Your task to perform on an android device: turn off translation in the chrome app Image 0: 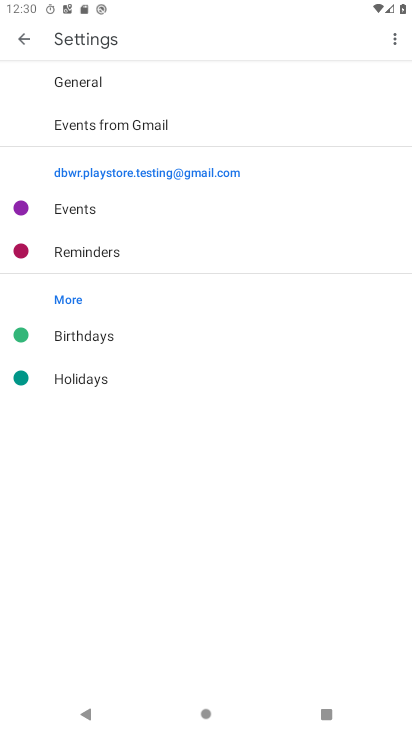
Step 0: press home button
Your task to perform on an android device: turn off translation in the chrome app Image 1: 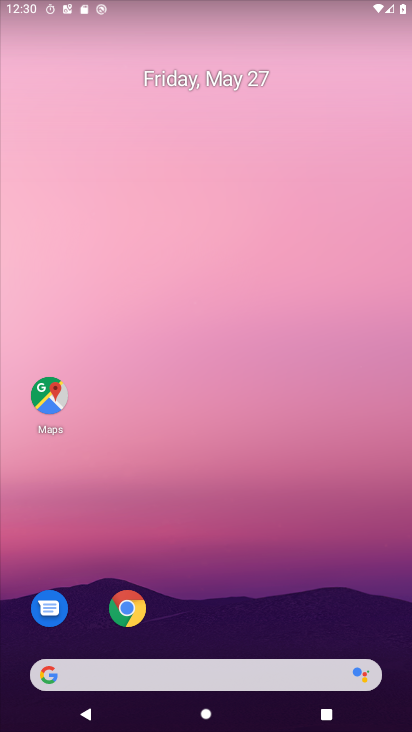
Step 1: click (130, 612)
Your task to perform on an android device: turn off translation in the chrome app Image 2: 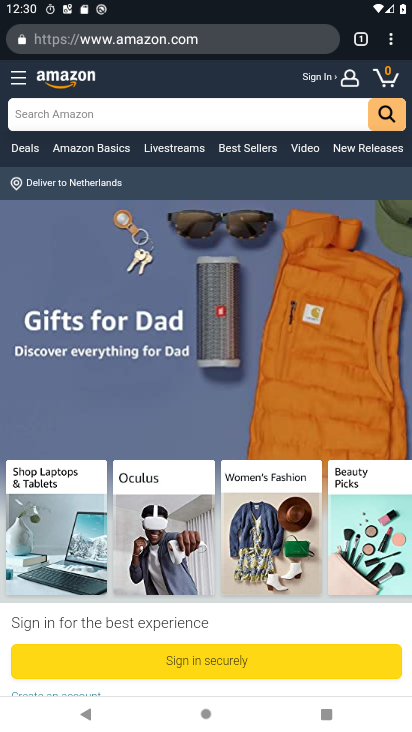
Step 2: click (387, 38)
Your task to perform on an android device: turn off translation in the chrome app Image 3: 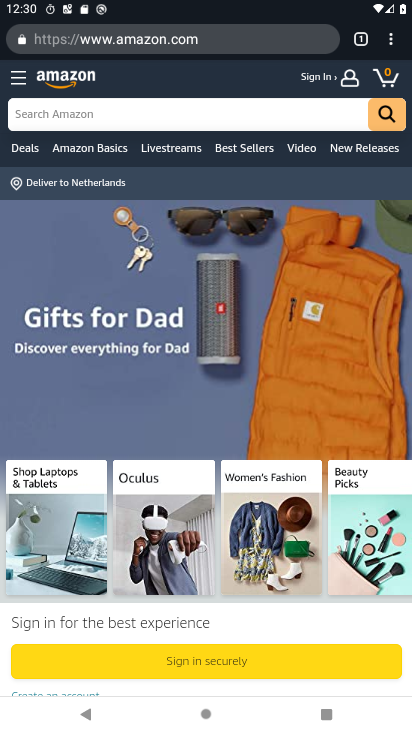
Step 3: click (392, 40)
Your task to perform on an android device: turn off translation in the chrome app Image 4: 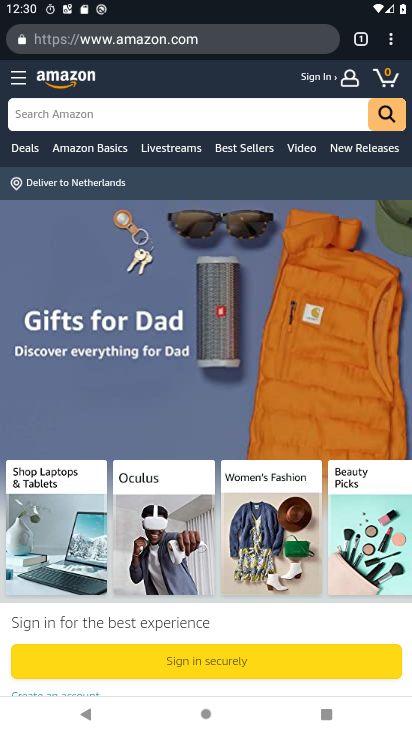
Step 4: click (388, 40)
Your task to perform on an android device: turn off translation in the chrome app Image 5: 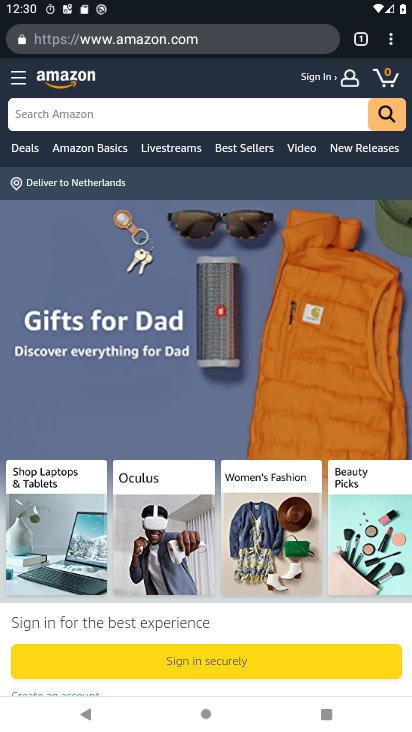
Step 5: click (390, 41)
Your task to perform on an android device: turn off translation in the chrome app Image 6: 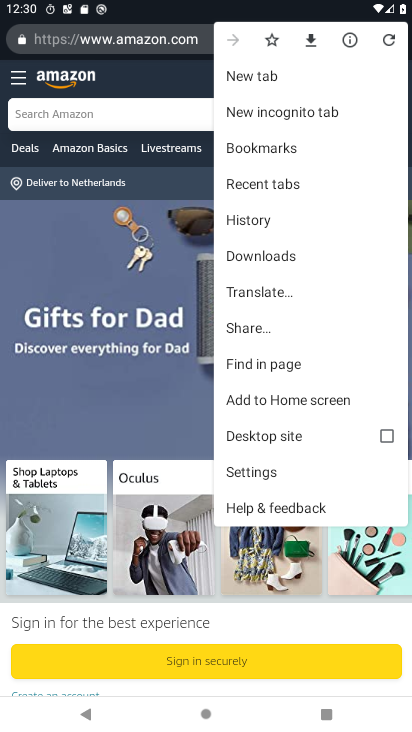
Step 6: click (248, 466)
Your task to perform on an android device: turn off translation in the chrome app Image 7: 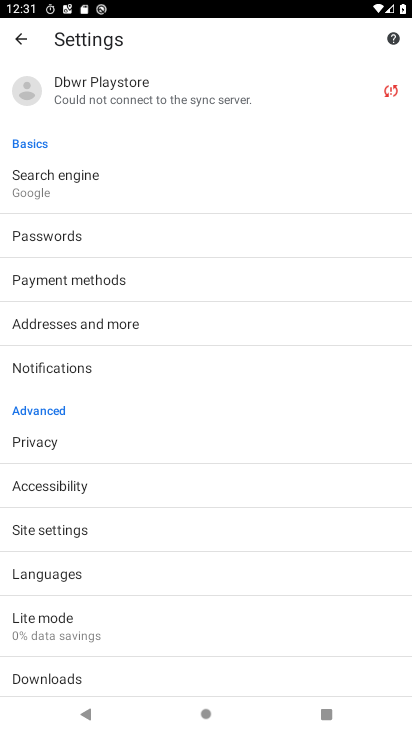
Step 7: click (73, 574)
Your task to perform on an android device: turn off translation in the chrome app Image 8: 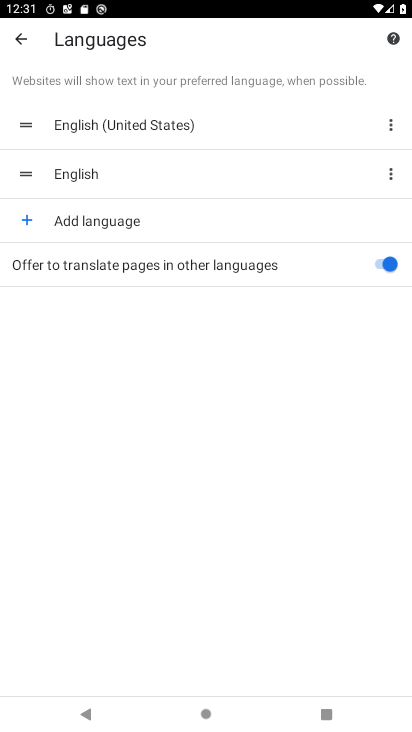
Step 8: click (380, 266)
Your task to perform on an android device: turn off translation in the chrome app Image 9: 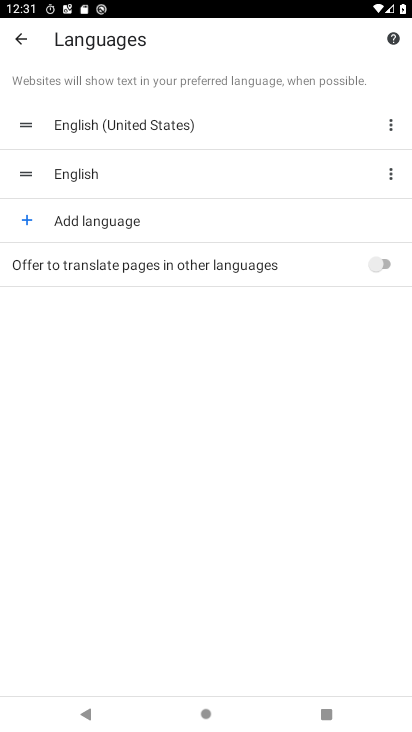
Step 9: task complete